Your task to perform on an android device: Show me productivity apps on the Play Store Image 0: 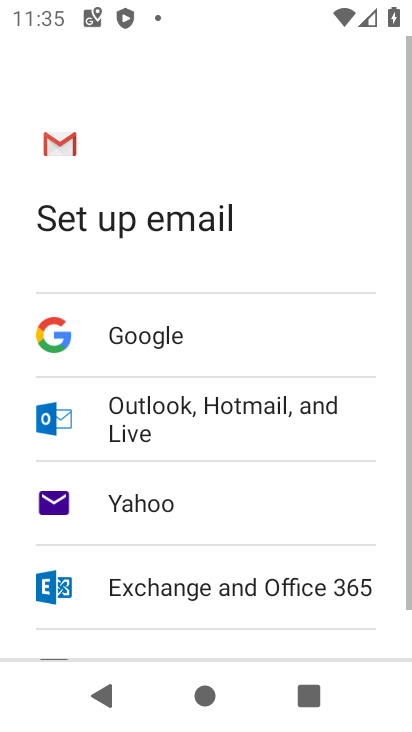
Step 0: press home button
Your task to perform on an android device: Show me productivity apps on the Play Store Image 1: 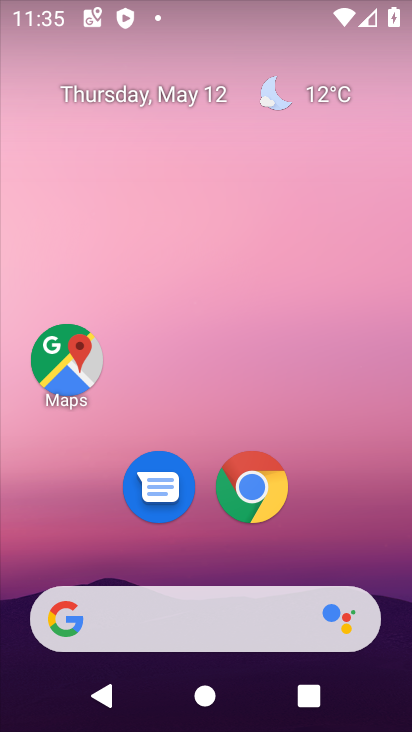
Step 1: drag from (369, 544) to (245, 730)
Your task to perform on an android device: Show me productivity apps on the Play Store Image 2: 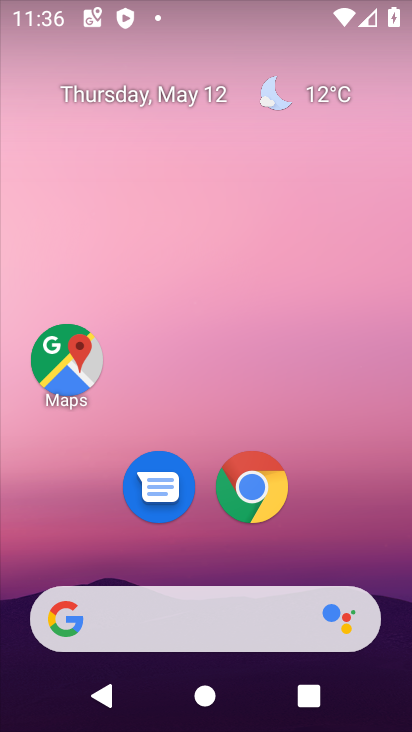
Step 2: click (384, 573)
Your task to perform on an android device: Show me productivity apps on the Play Store Image 3: 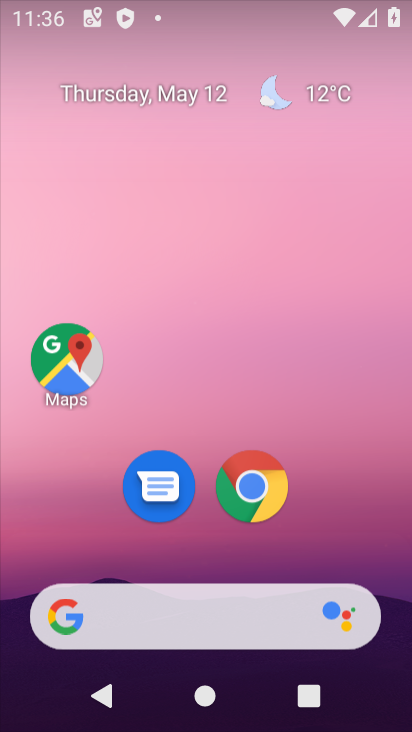
Step 3: drag from (408, 553) to (370, 699)
Your task to perform on an android device: Show me productivity apps on the Play Store Image 4: 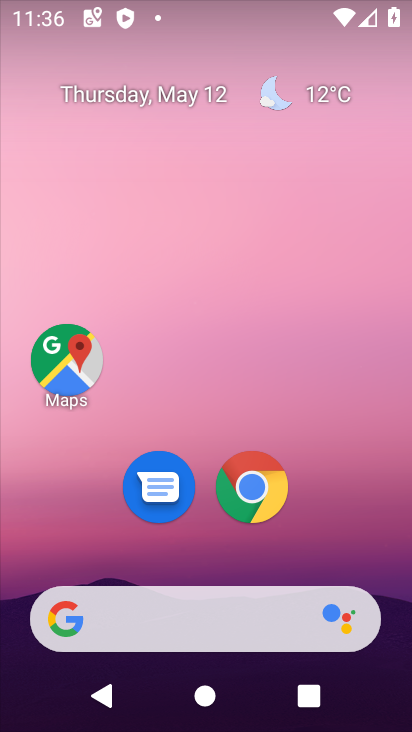
Step 4: drag from (388, 588) to (261, 6)
Your task to perform on an android device: Show me productivity apps on the Play Store Image 5: 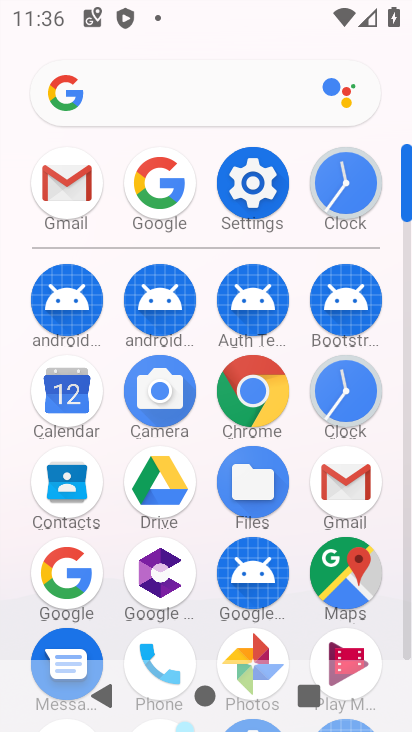
Step 5: drag from (410, 540) to (410, 498)
Your task to perform on an android device: Show me productivity apps on the Play Store Image 6: 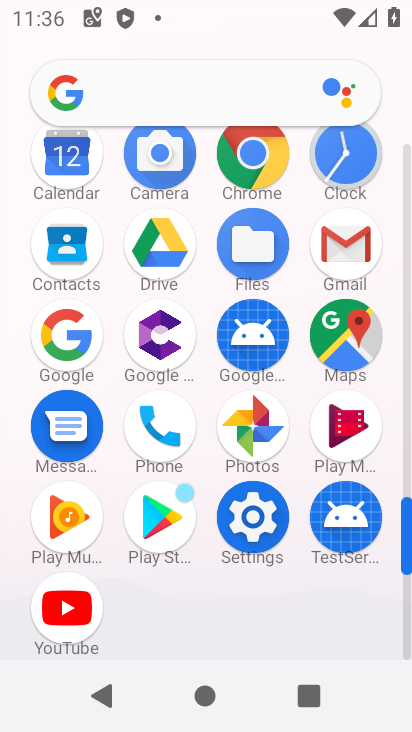
Step 6: click (156, 529)
Your task to perform on an android device: Show me productivity apps on the Play Store Image 7: 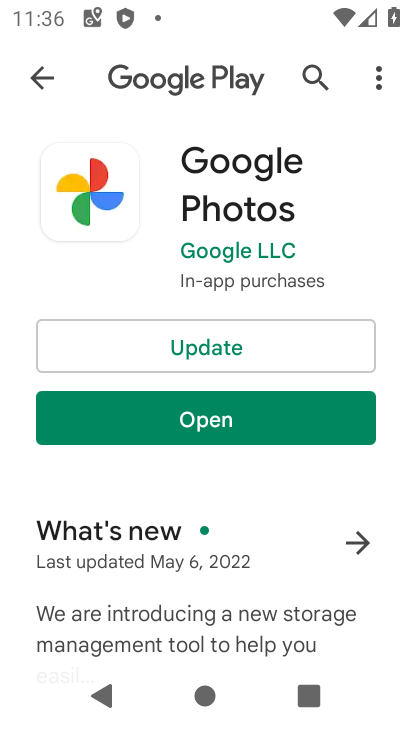
Step 7: click (38, 84)
Your task to perform on an android device: Show me productivity apps on the Play Store Image 8: 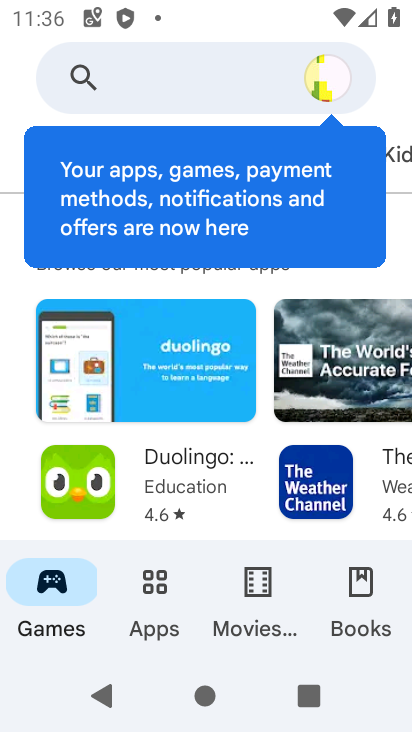
Step 8: click (157, 609)
Your task to perform on an android device: Show me productivity apps on the Play Store Image 9: 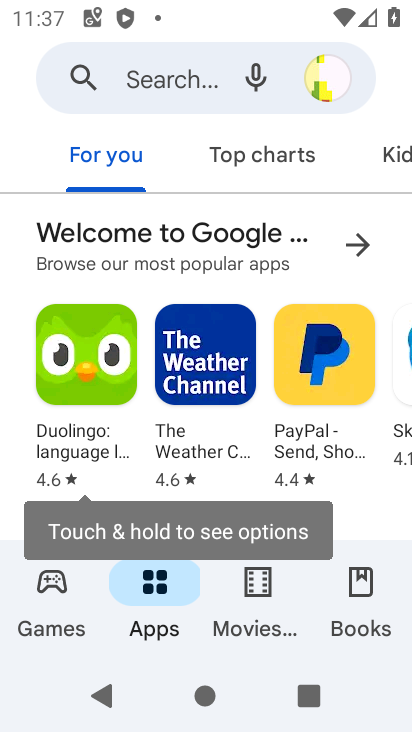
Step 9: drag from (297, 158) to (0, 176)
Your task to perform on an android device: Show me productivity apps on the Play Store Image 10: 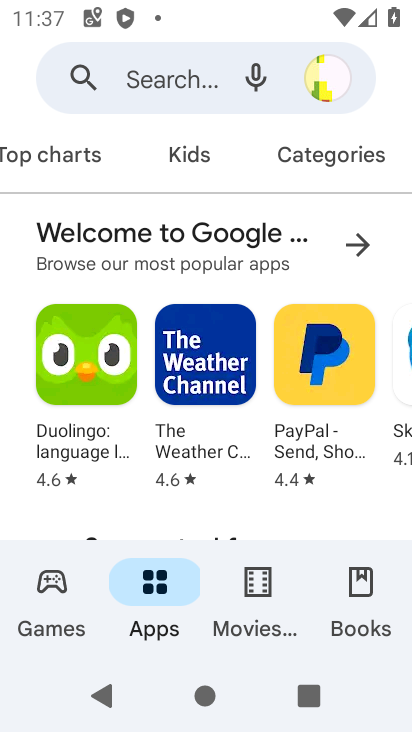
Step 10: click (328, 155)
Your task to perform on an android device: Show me productivity apps on the Play Store Image 11: 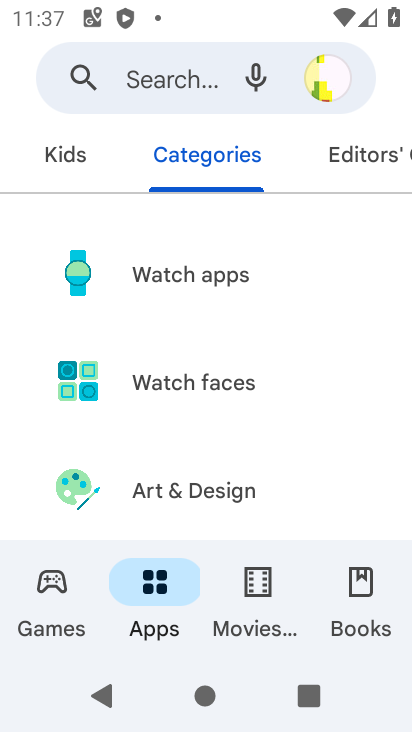
Step 11: drag from (322, 472) to (296, 0)
Your task to perform on an android device: Show me productivity apps on the Play Store Image 12: 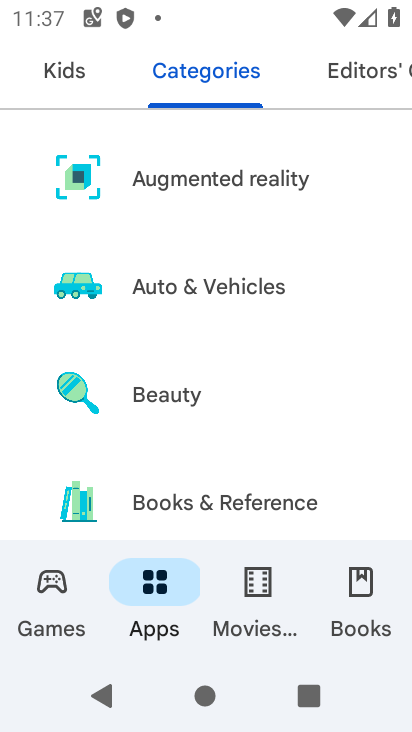
Step 12: drag from (335, 445) to (305, 25)
Your task to perform on an android device: Show me productivity apps on the Play Store Image 13: 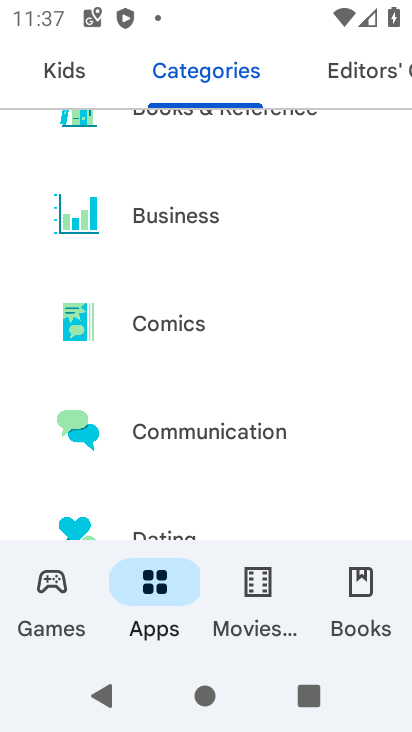
Step 13: drag from (320, 458) to (302, 11)
Your task to perform on an android device: Show me productivity apps on the Play Store Image 14: 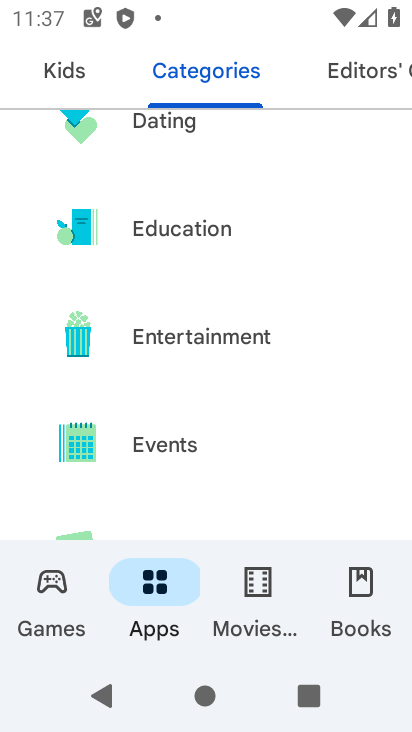
Step 14: drag from (323, 454) to (304, 8)
Your task to perform on an android device: Show me productivity apps on the Play Store Image 15: 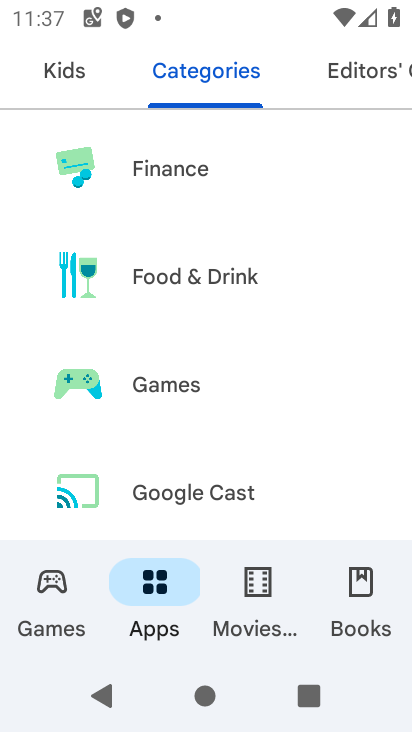
Step 15: drag from (305, 437) to (298, 46)
Your task to perform on an android device: Show me productivity apps on the Play Store Image 16: 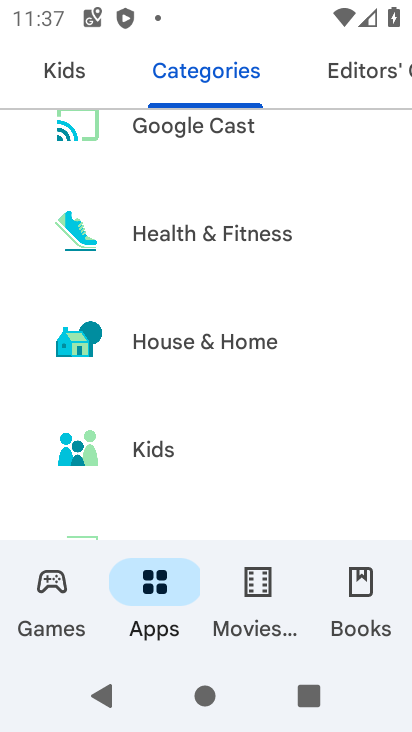
Step 16: drag from (258, 456) to (289, 14)
Your task to perform on an android device: Show me productivity apps on the Play Store Image 17: 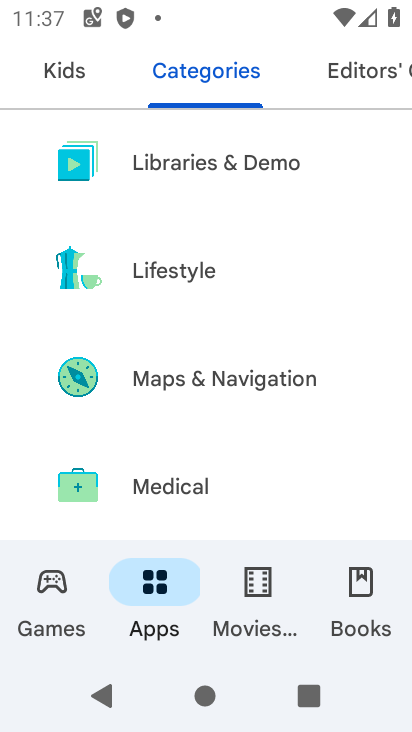
Step 17: drag from (299, 467) to (323, 12)
Your task to perform on an android device: Show me productivity apps on the Play Store Image 18: 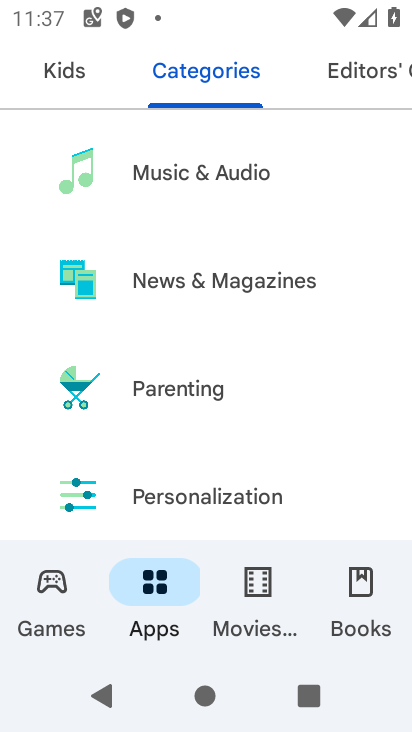
Step 18: drag from (280, 434) to (293, 89)
Your task to perform on an android device: Show me productivity apps on the Play Store Image 19: 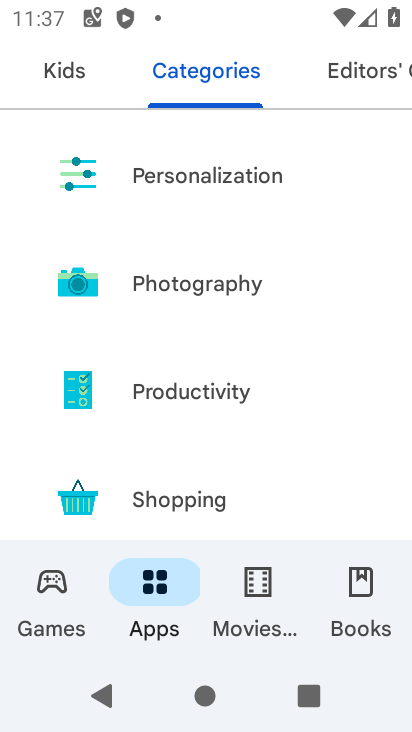
Step 19: click (173, 396)
Your task to perform on an android device: Show me productivity apps on the Play Store Image 20: 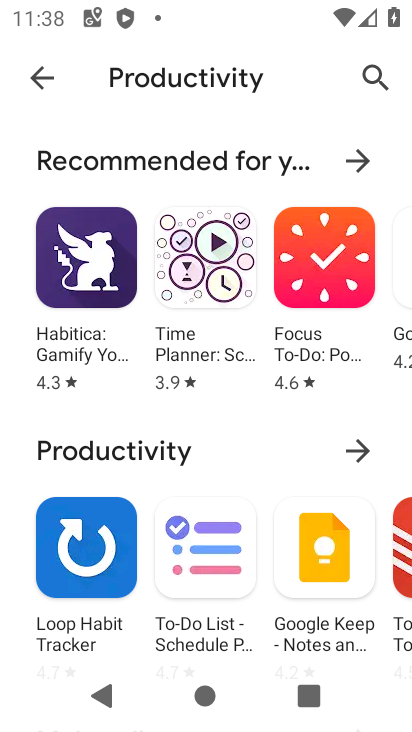
Step 20: task complete